Your task to perform on an android device: open app "Mercado Libre" (install if not already installed) Image 0: 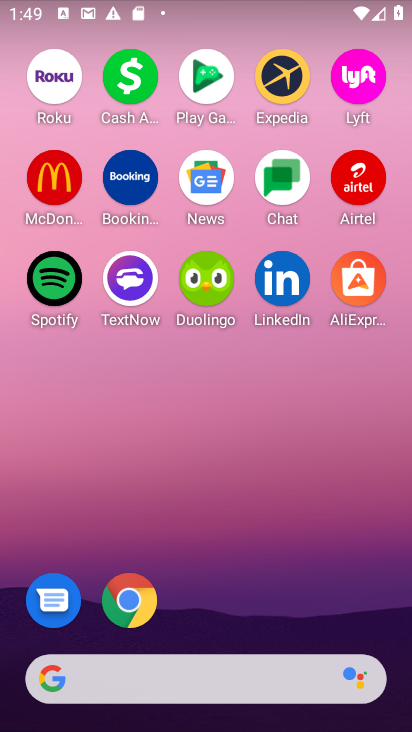
Step 0: drag from (192, 657) to (214, 44)
Your task to perform on an android device: open app "Mercado Libre" (install if not already installed) Image 1: 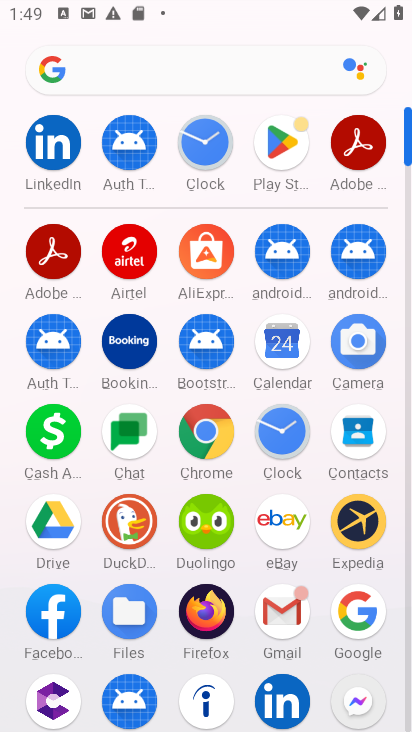
Step 1: click (282, 170)
Your task to perform on an android device: open app "Mercado Libre" (install if not already installed) Image 2: 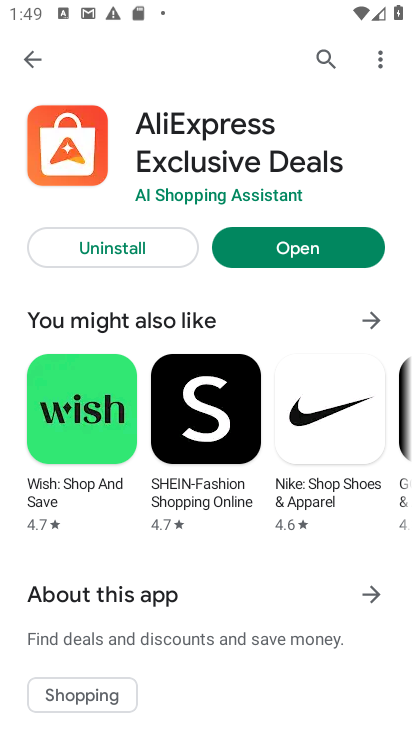
Step 2: click (322, 67)
Your task to perform on an android device: open app "Mercado Libre" (install if not already installed) Image 3: 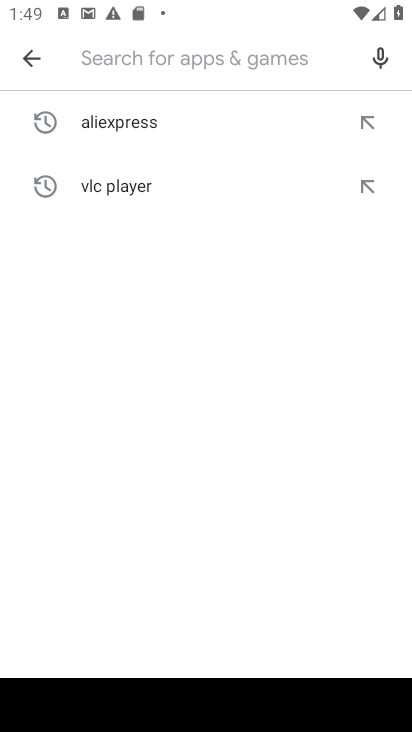
Step 3: type "mercado liber"
Your task to perform on an android device: open app "Mercado Libre" (install if not already installed) Image 4: 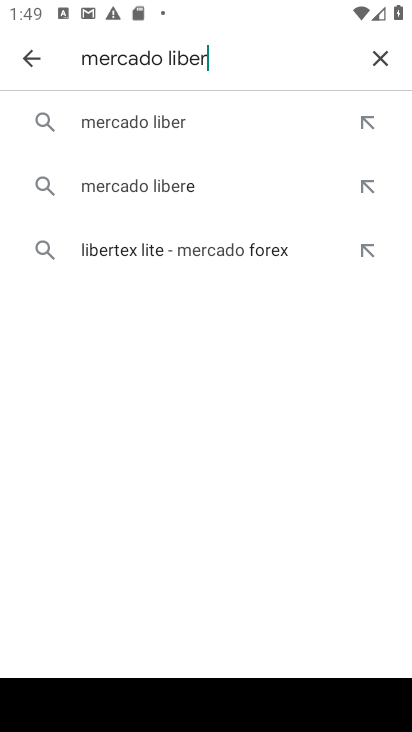
Step 4: click (121, 124)
Your task to perform on an android device: open app "Mercado Libre" (install if not already installed) Image 5: 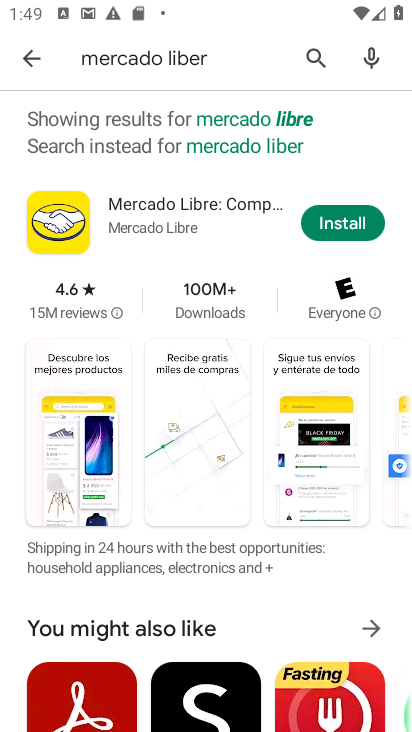
Step 5: click (321, 230)
Your task to perform on an android device: open app "Mercado Libre" (install if not already installed) Image 6: 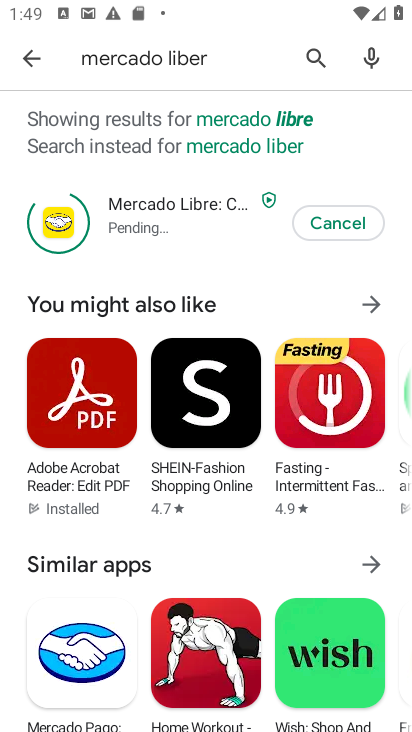
Step 6: task complete